Your task to perform on an android device: remove spam from my inbox in the gmail app Image 0: 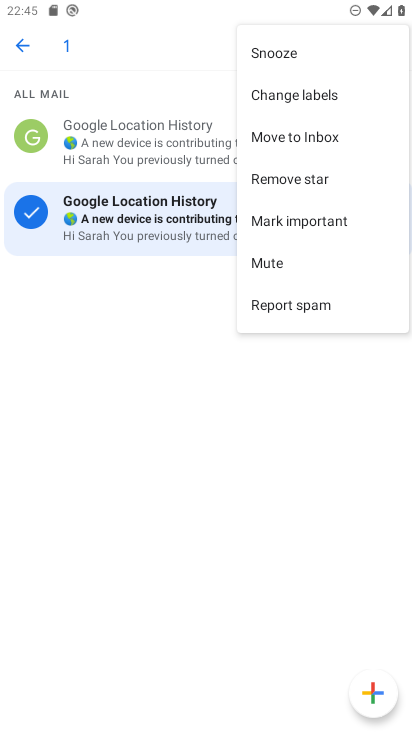
Step 0: click (28, 43)
Your task to perform on an android device: remove spam from my inbox in the gmail app Image 1: 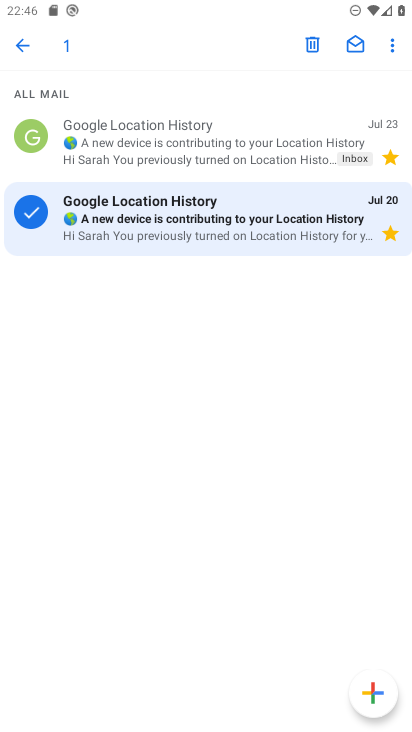
Step 1: click (24, 48)
Your task to perform on an android device: remove spam from my inbox in the gmail app Image 2: 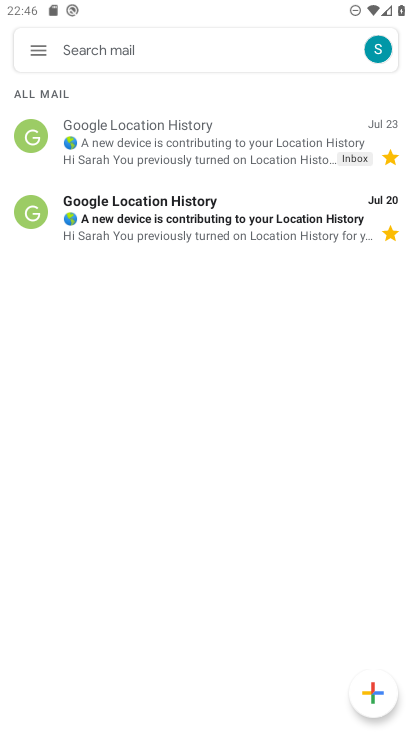
Step 2: click (36, 50)
Your task to perform on an android device: remove spam from my inbox in the gmail app Image 3: 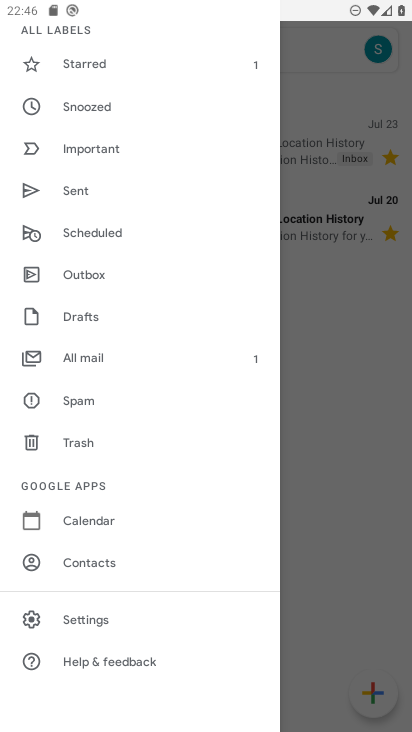
Step 3: click (101, 397)
Your task to perform on an android device: remove spam from my inbox in the gmail app Image 4: 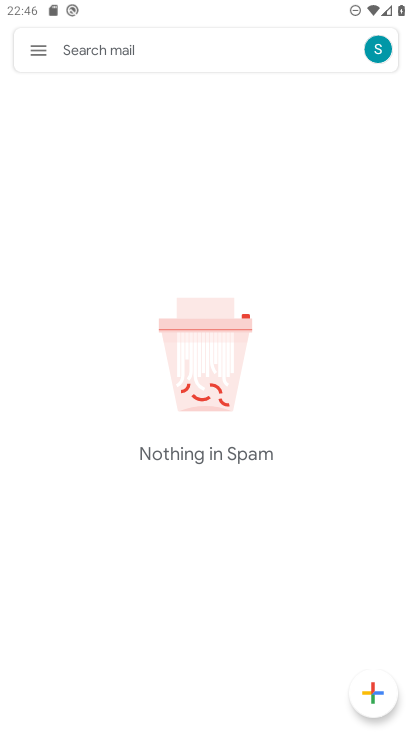
Step 4: task complete